Your task to perform on an android device: Open Amazon Image 0: 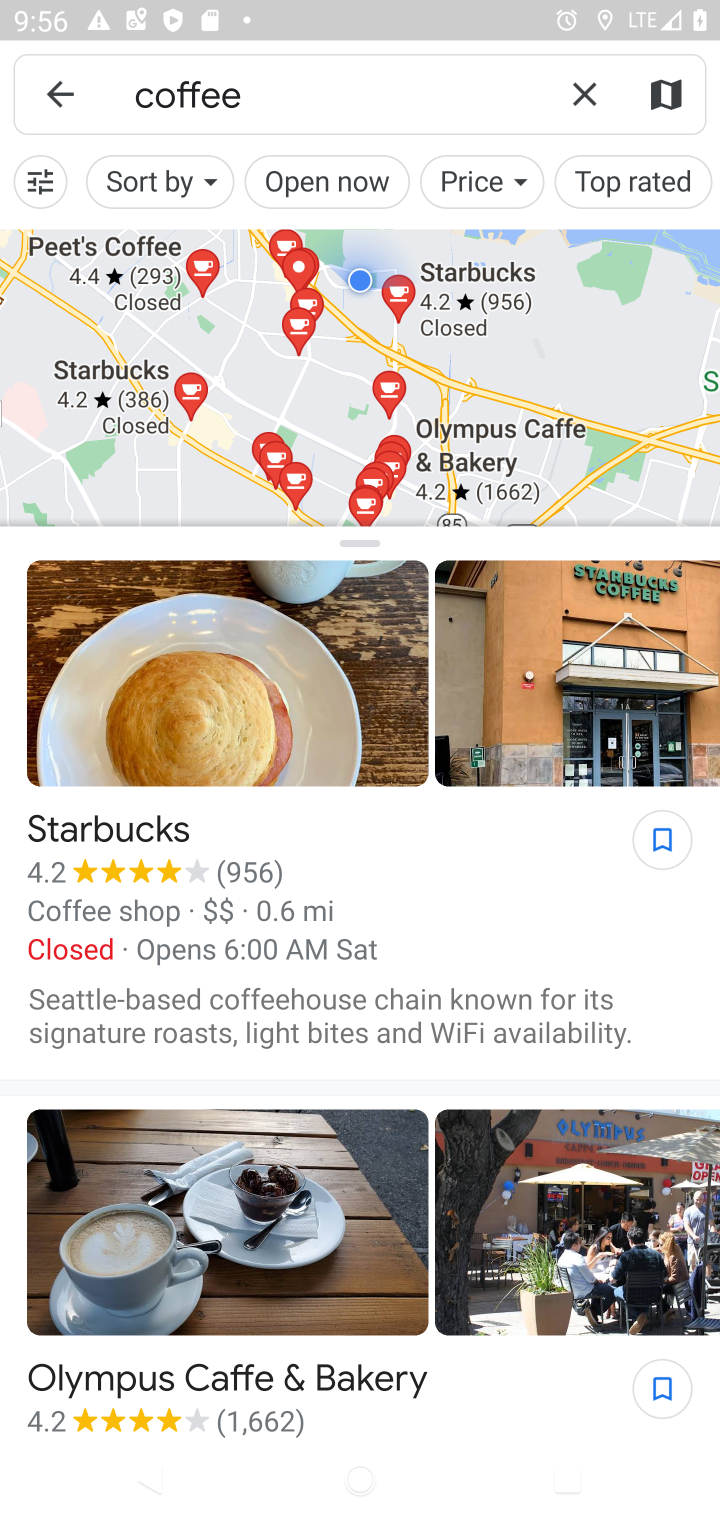
Step 0: press home button
Your task to perform on an android device: Open Amazon Image 1: 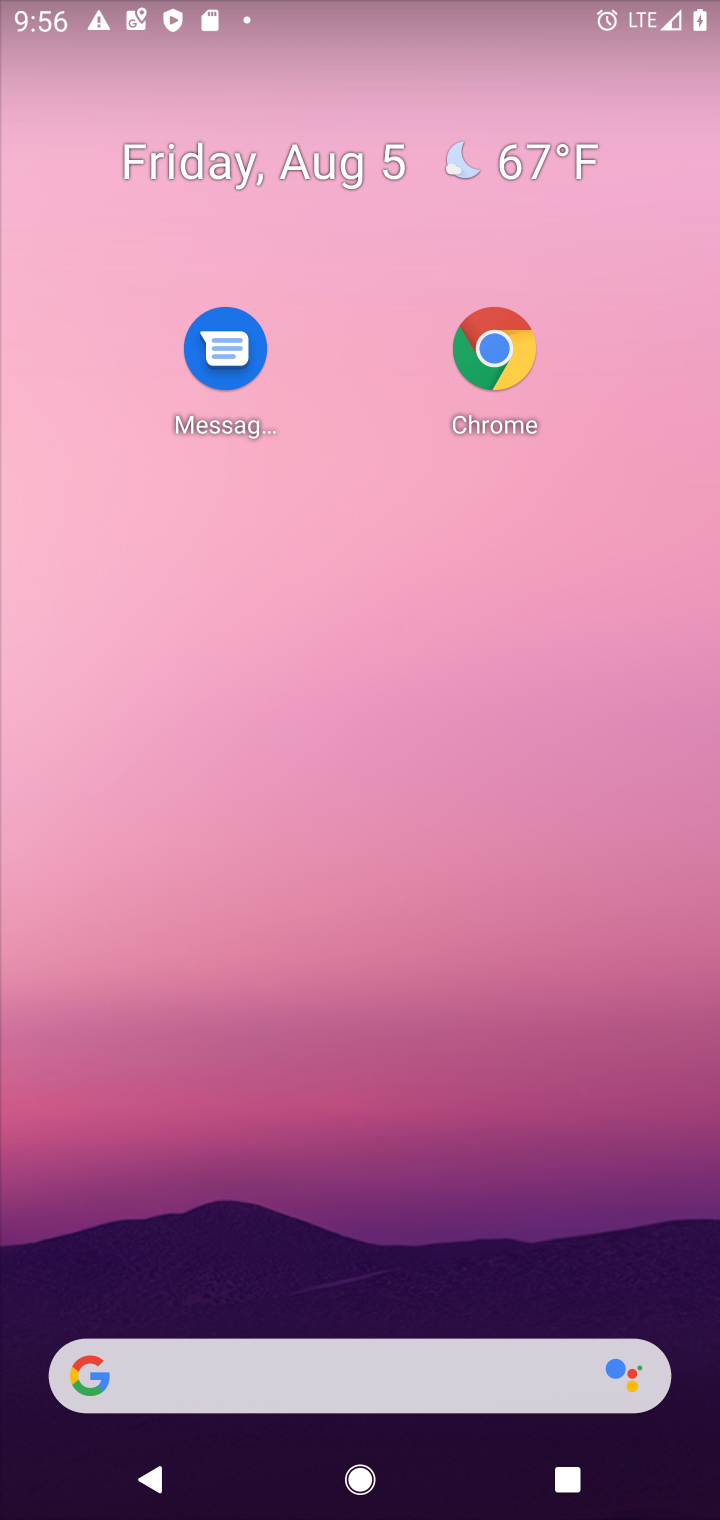
Step 1: drag from (426, 652) to (435, 486)
Your task to perform on an android device: Open Amazon Image 2: 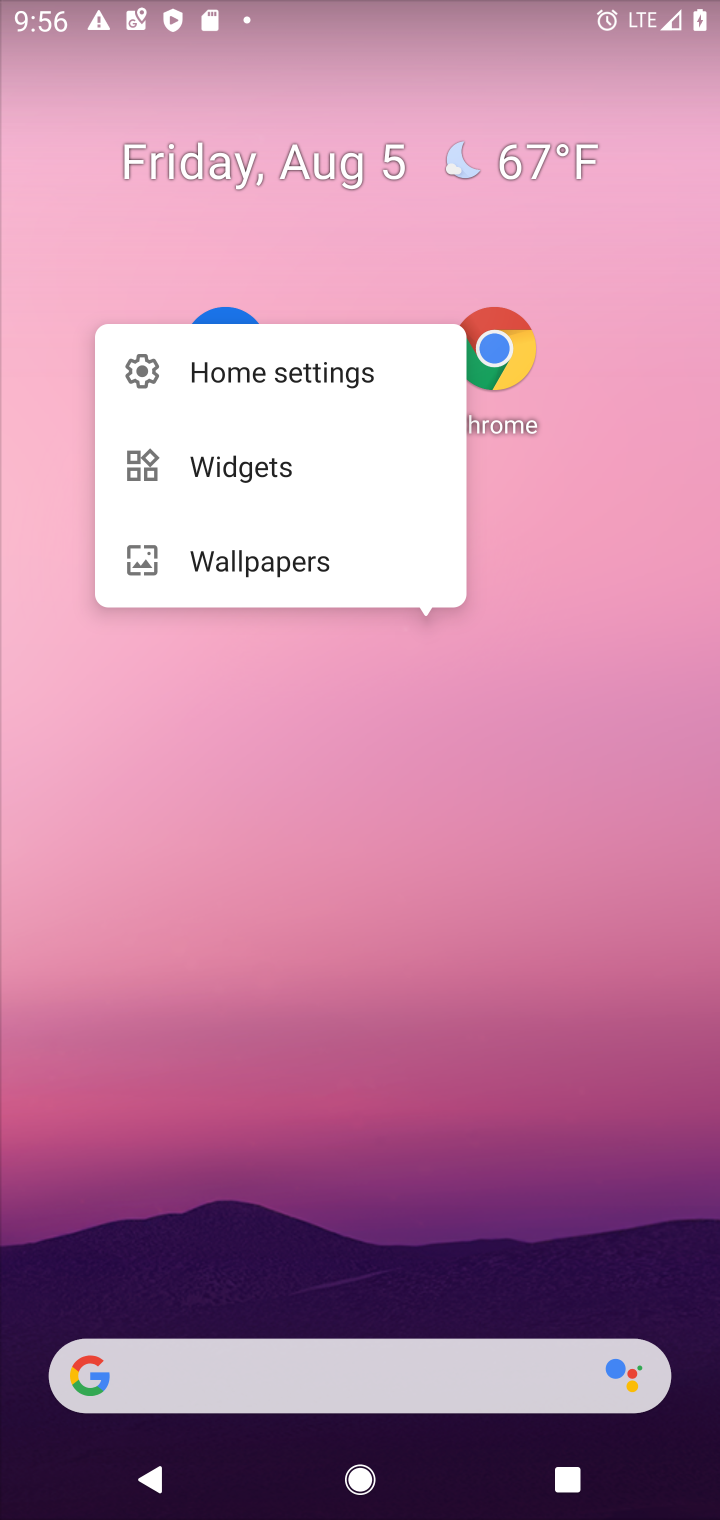
Step 2: click (554, 854)
Your task to perform on an android device: Open Amazon Image 3: 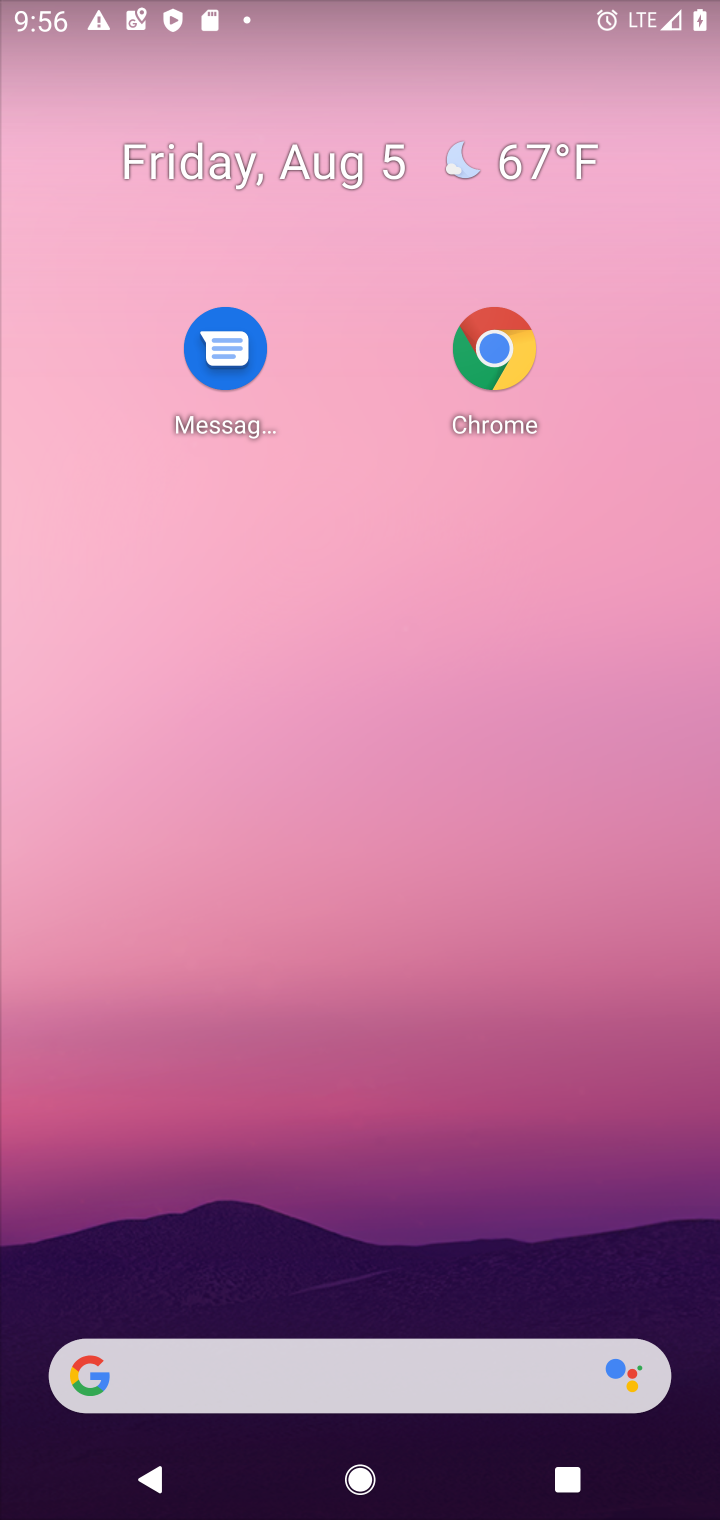
Step 3: drag from (440, 1432) to (178, 2)
Your task to perform on an android device: Open Amazon Image 4: 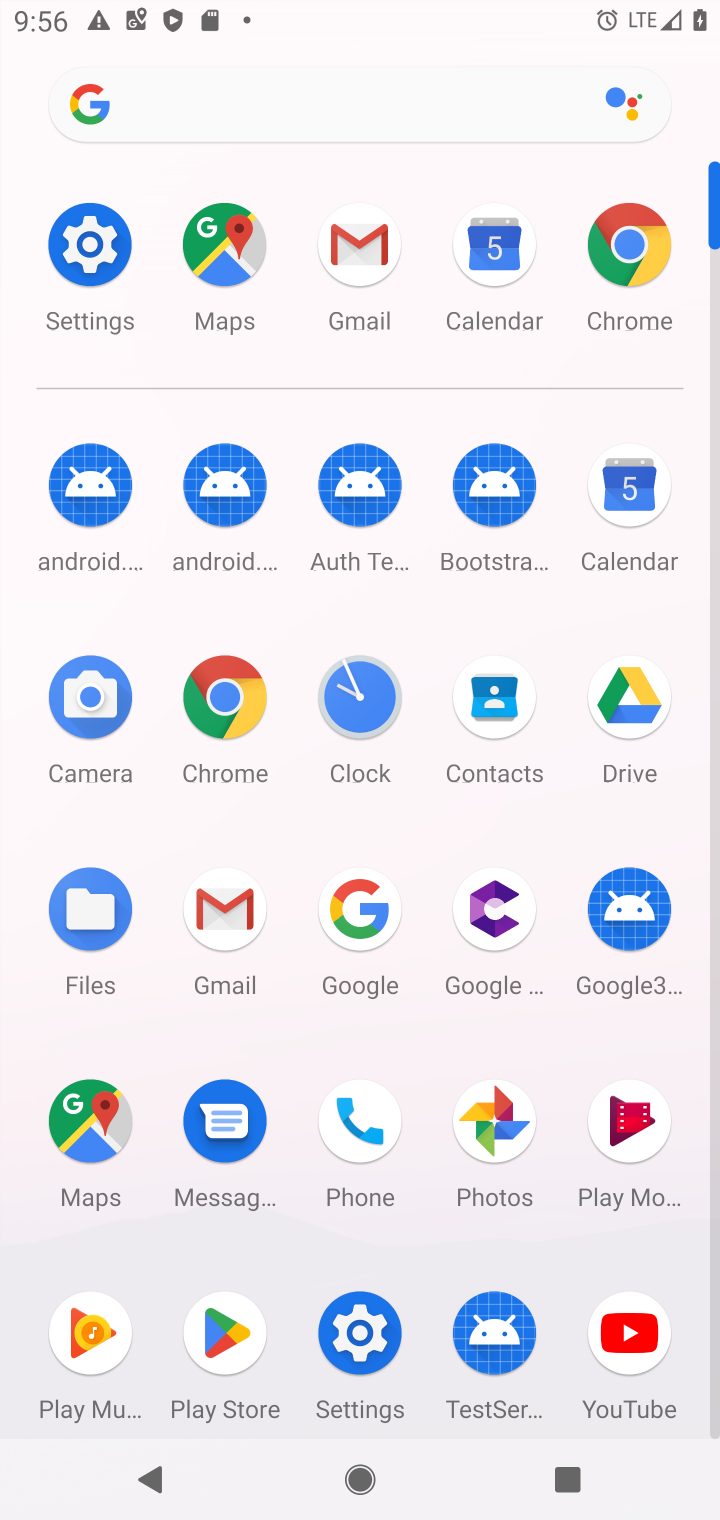
Step 4: click (615, 255)
Your task to perform on an android device: Open Amazon Image 5: 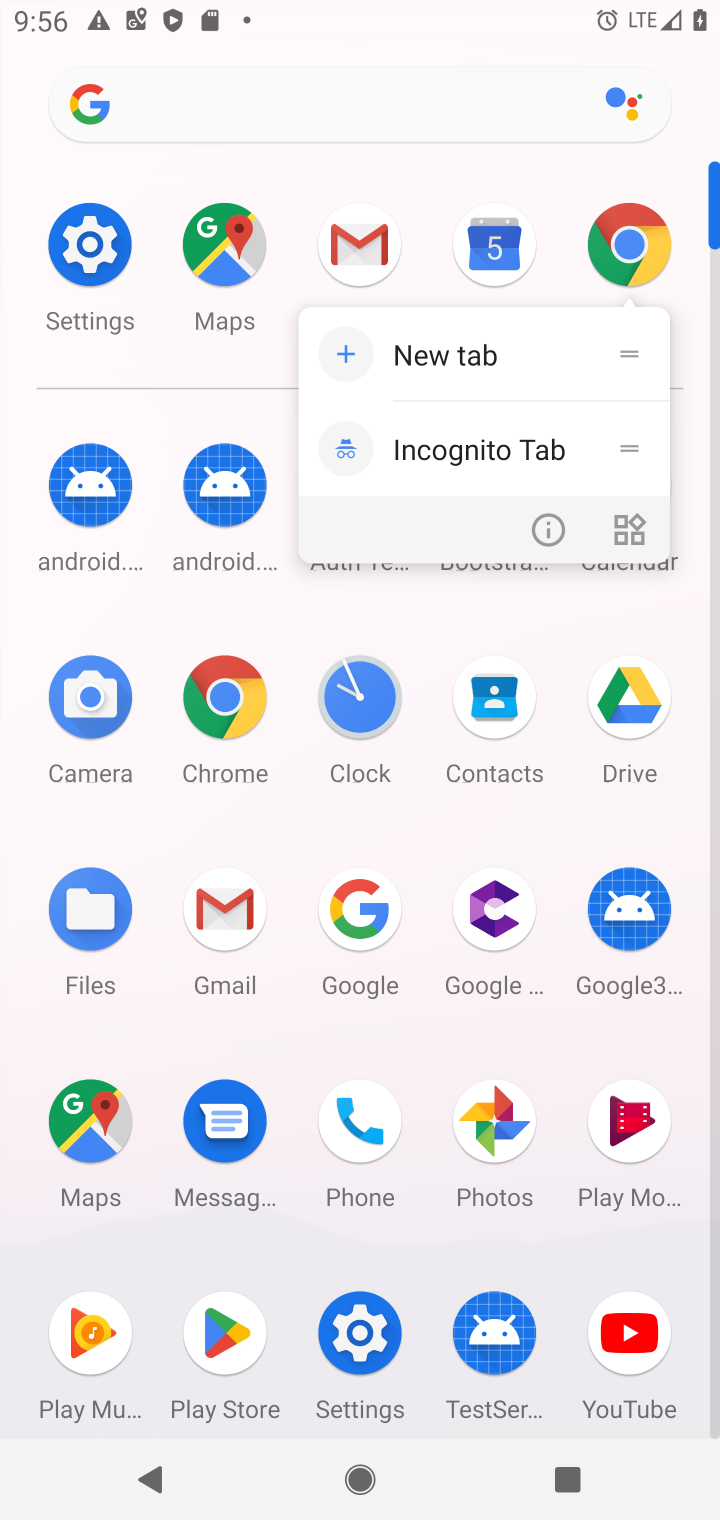
Step 5: click (647, 242)
Your task to perform on an android device: Open Amazon Image 6: 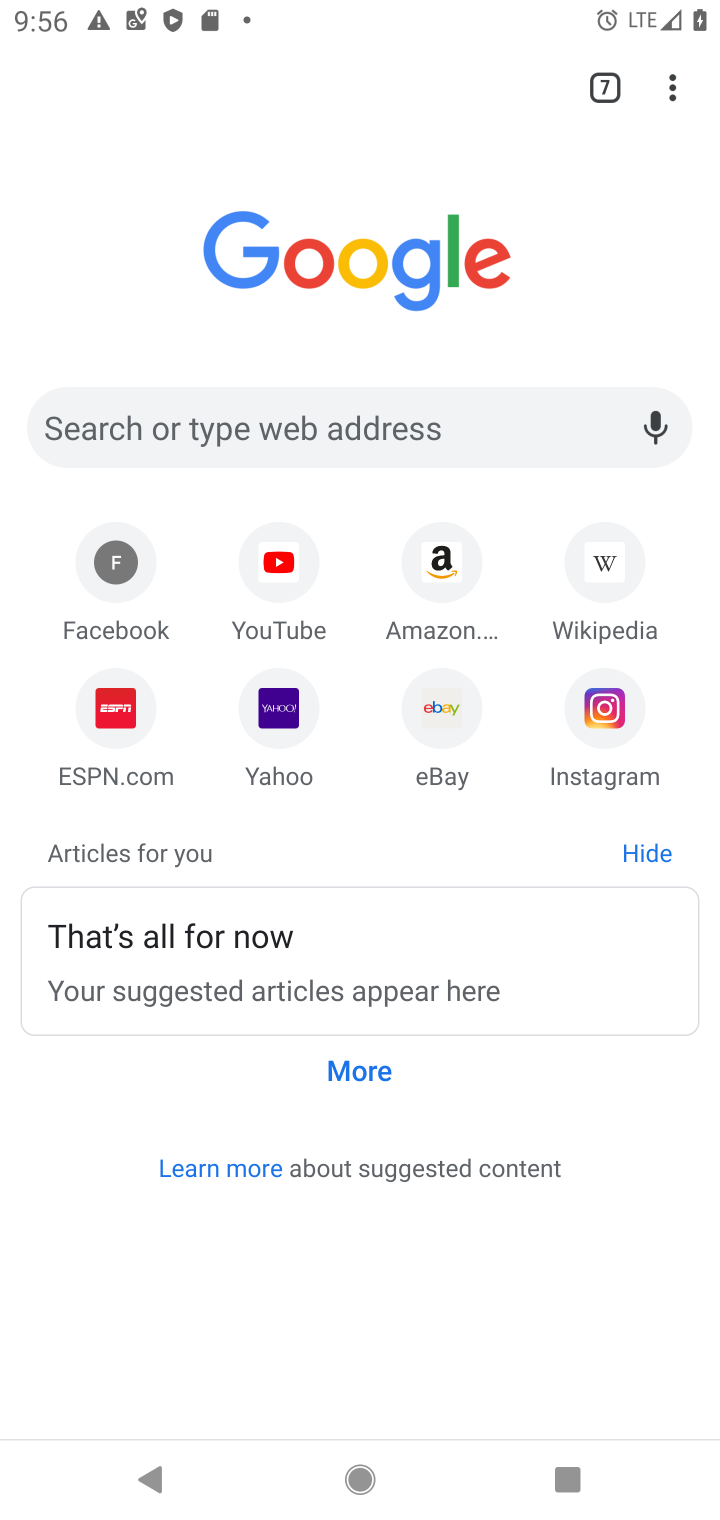
Step 6: click (445, 580)
Your task to perform on an android device: Open Amazon Image 7: 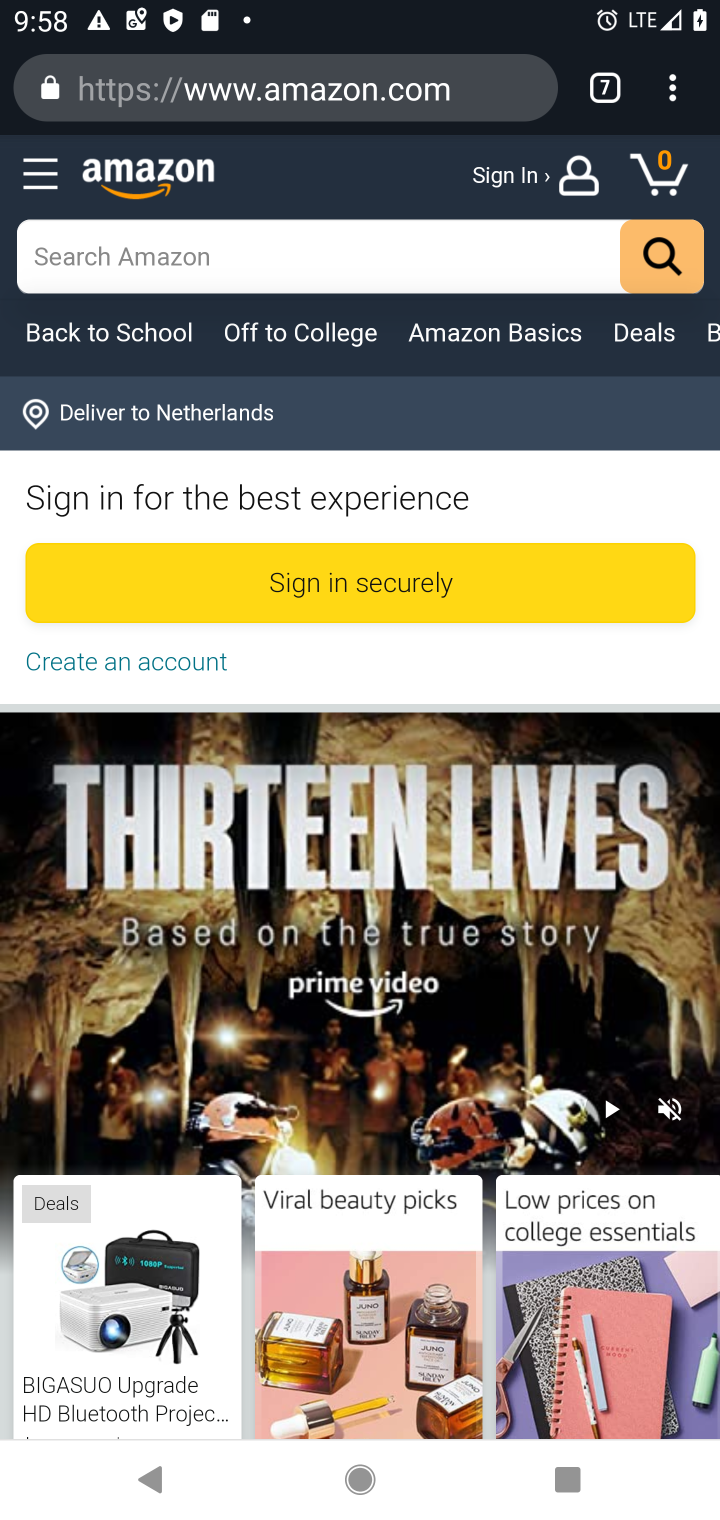
Step 7: task complete